Your task to perform on an android device: See recent photos Image 0: 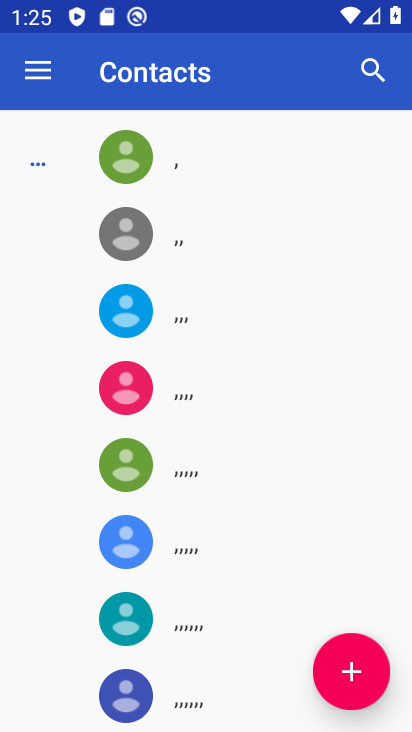
Step 0: task complete